Your task to perform on an android device: Open Google Maps and go to "Timeline" Image 0: 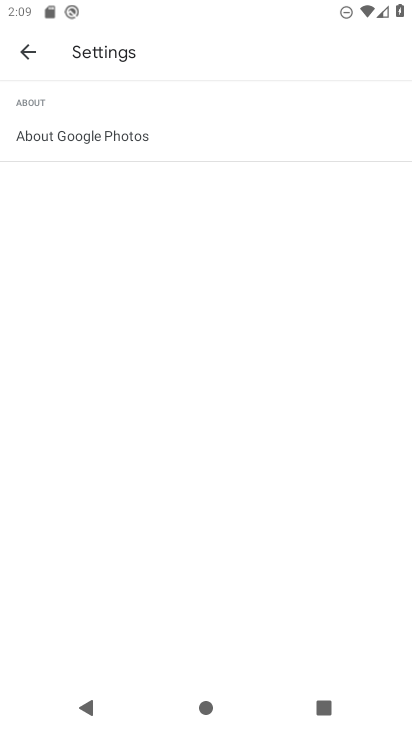
Step 0: press home button
Your task to perform on an android device: Open Google Maps and go to "Timeline" Image 1: 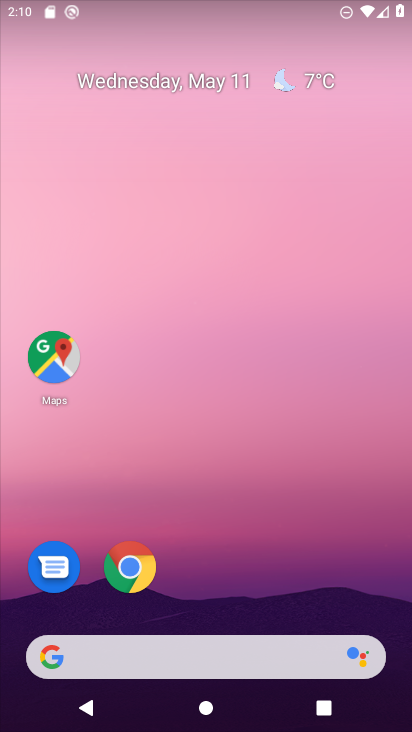
Step 1: click (61, 362)
Your task to perform on an android device: Open Google Maps and go to "Timeline" Image 2: 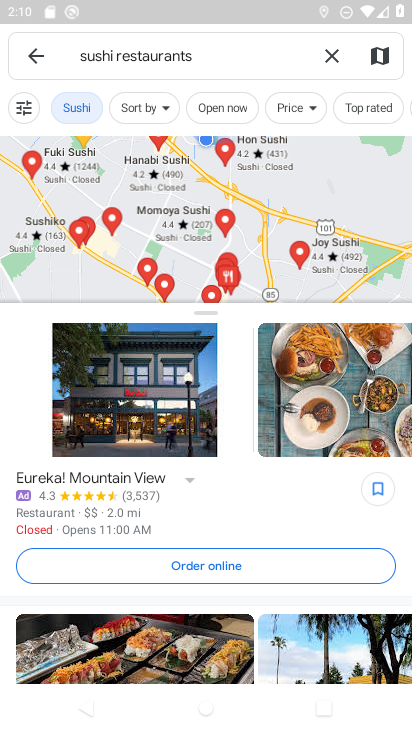
Step 2: click (40, 51)
Your task to perform on an android device: Open Google Maps and go to "Timeline" Image 3: 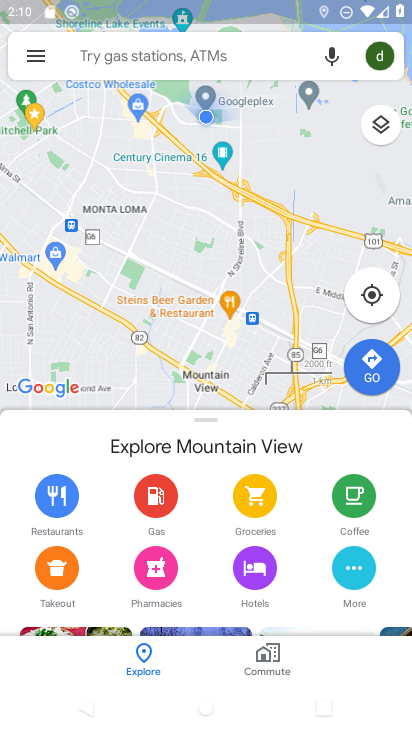
Step 3: click (40, 51)
Your task to perform on an android device: Open Google Maps and go to "Timeline" Image 4: 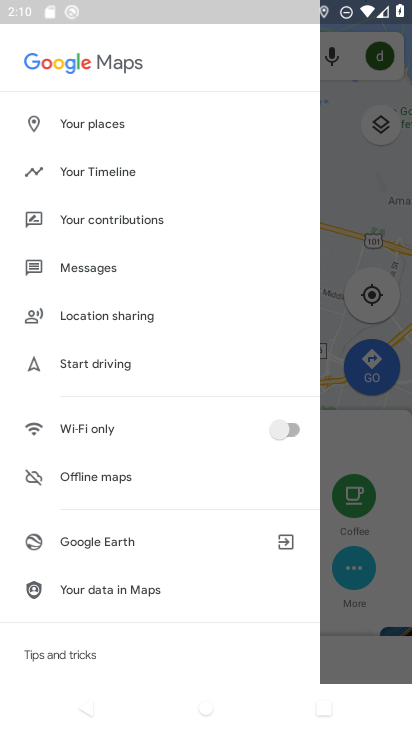
Step 4: click (125, 167)
Your task to perform on an android device: Open Google Maps and go to "Timeline" Image 5: 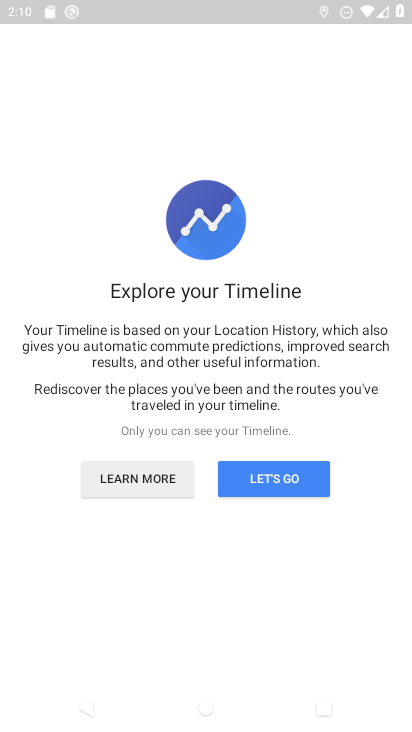
Step 5: click (270, 485)
Your task to perform on an android device: Open Google Maps and go to "Timeline" Image 6: 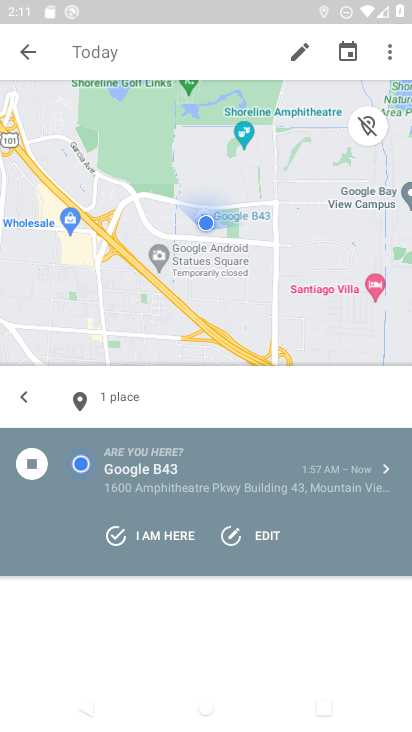
Step 6: task complete